Your task to perform on an android device: change the clock display to digital Image 0: 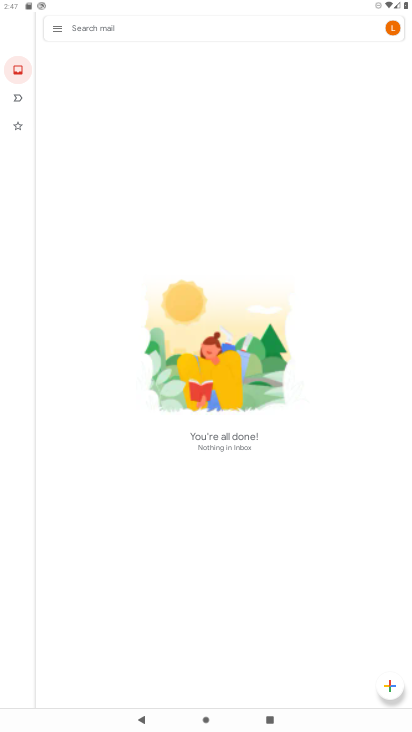
Step 0: press home button
Your task to perform on an android device: change the clock display to digital Image 1: 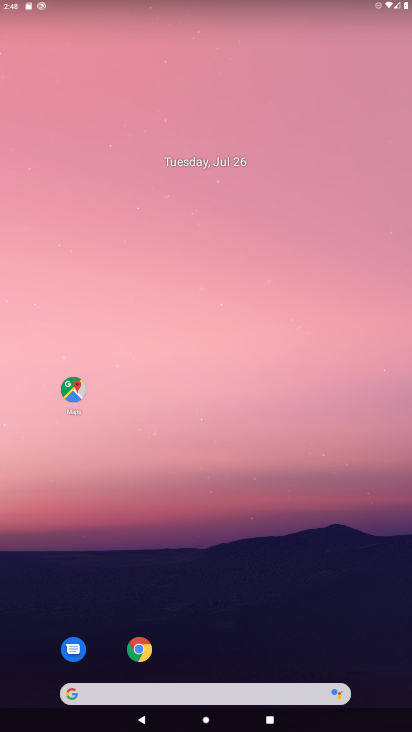
Step 1: drag from (170, 694) to (152, 125)
Your task to perform on an android device: change the clock display to digital Image 2: 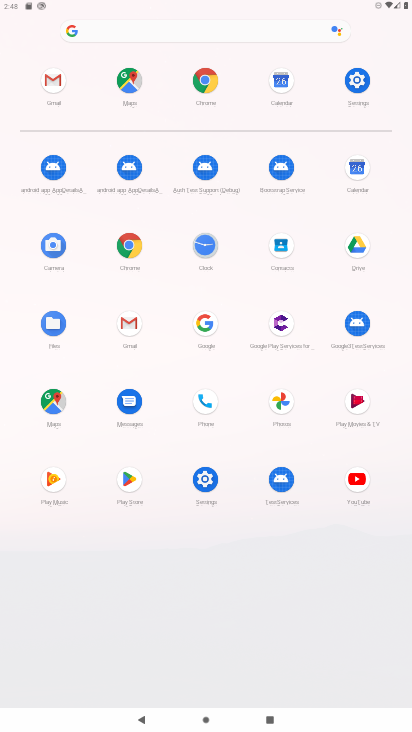
Step 2: click (205, 246)
Your task to perform on an android device: change the clock display to digital Image 3: 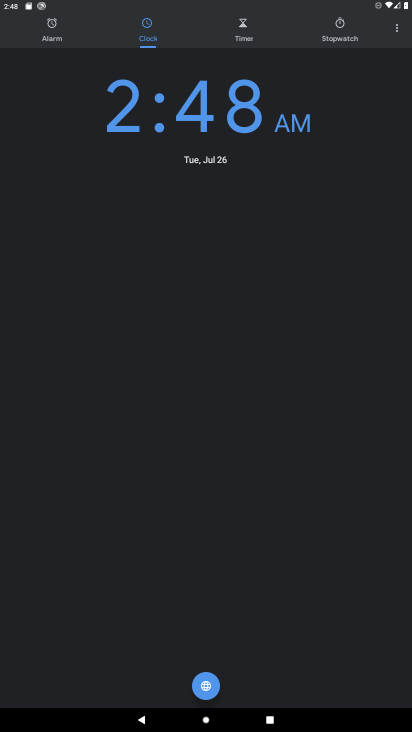
Step 3: click (398, 23)
Your task to perform on an android device: change the clock display to digital Image 4: 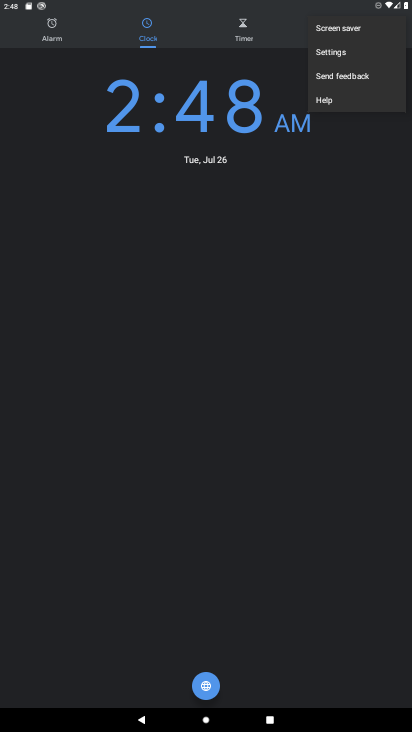
Step 4: click (352, 51)
Your task to perform on an android device: change the clock display to digital Image 5: 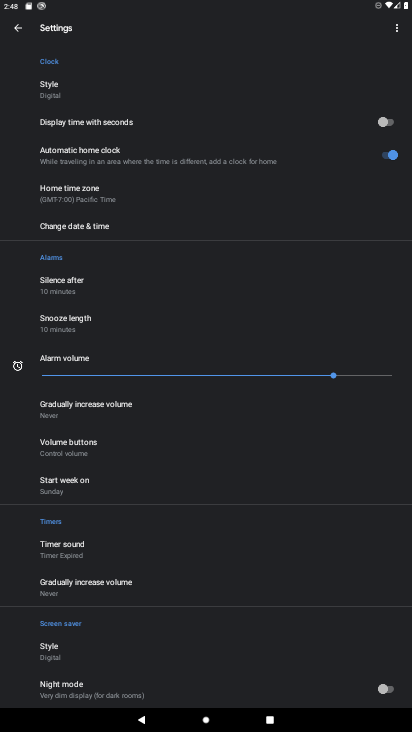
Step 5: click (29, 78)
Your task to perform on an android device: change the clock display to digital Image 6: 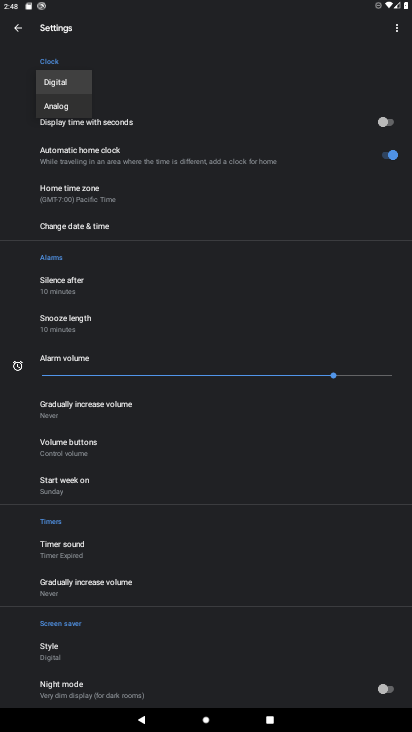
Step 6: click (72, 86)
Your task to perform on an android device: change the clock display to digital Image 7: 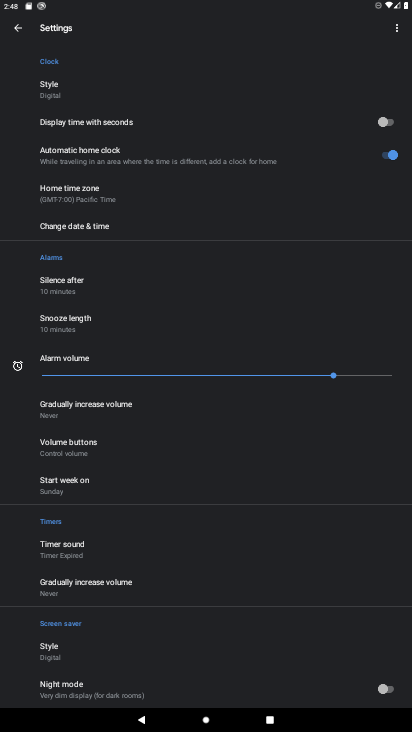
Step 7: task complete